Your task to perform on an android device: turn on translation in the chrome app Image 0: 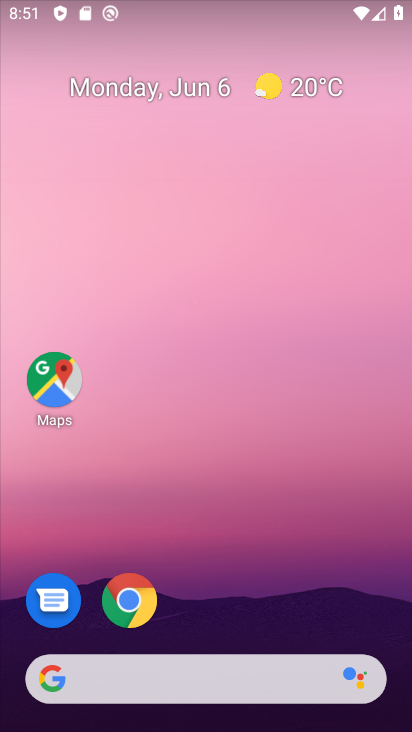
Step 0: click (129, 593)
Your task to perform on an android device: turn on translation in the chrome app Image 1: 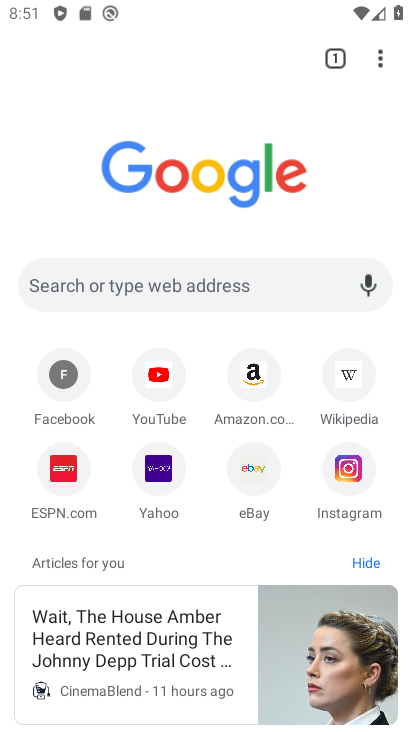
Step 1: click (377, 60)
Your task to perform on an android device: turn on translation in the chrome app Image 2: 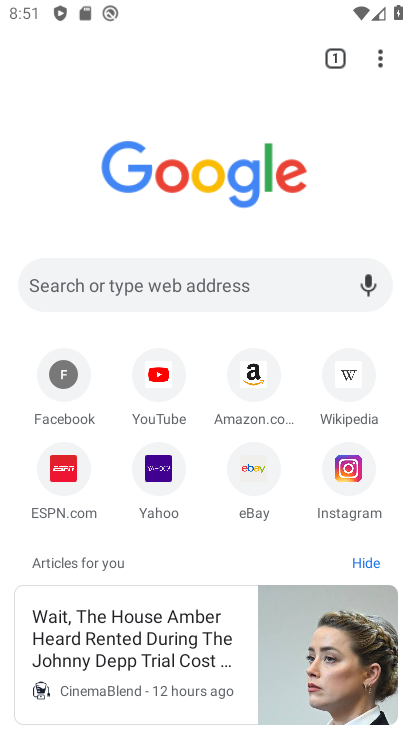
Step 2: click (379, 53)
Your task to perform on an android device: turn on translation in the chrome app Image 3: 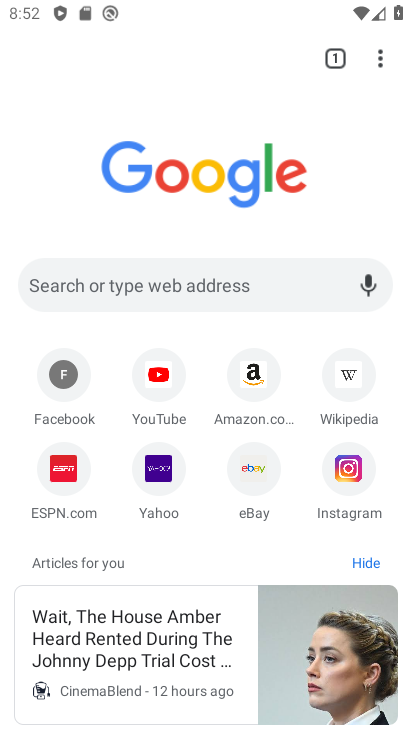
Step 3: click (382, 54)
Your task to perform on an android device: turn on translation in the chrome app Image 4: 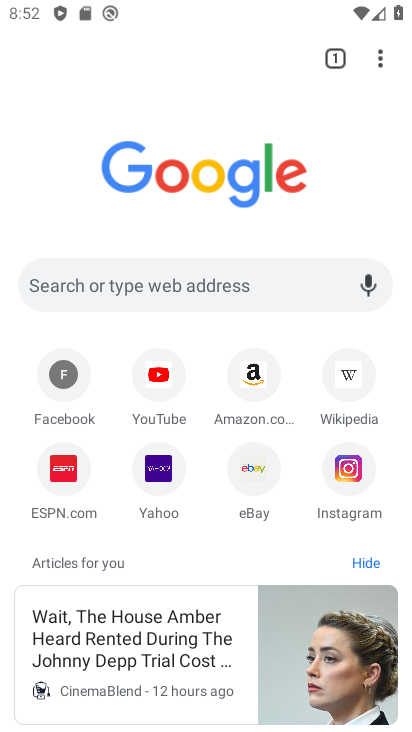
Step 4: click (382, 54)
Your task to perform on an android device: turn on translation in the chrome app Image 5: 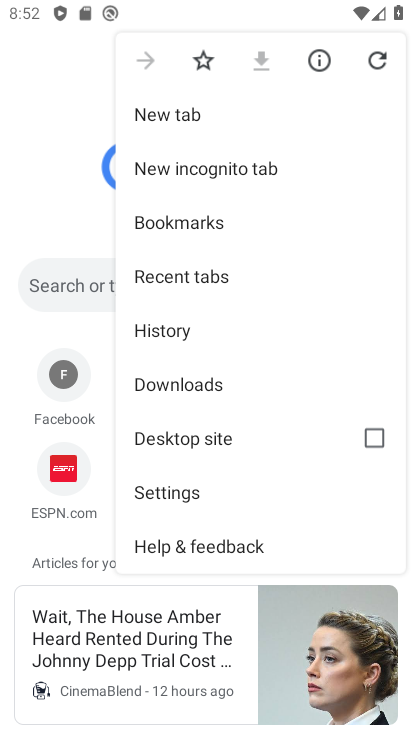
Step 5: click (209, 489)
Your task to perform on an android device: turn on translation in the chrome app Image 6: 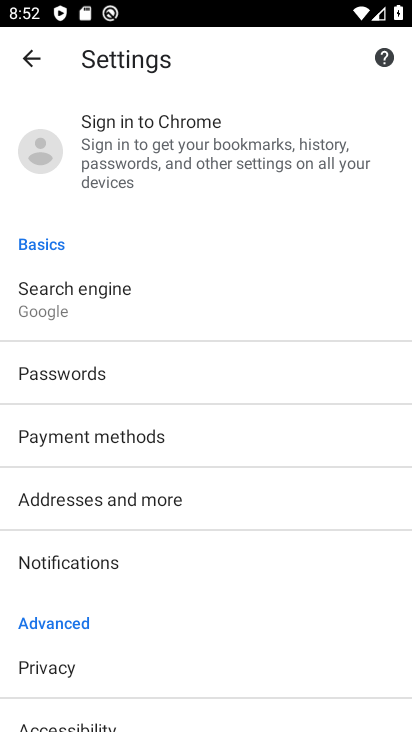
Step 6: drag from (58, 552) to (238, 230)
Your task to perform on an android device: turn on translation in the chrome app Image 7: 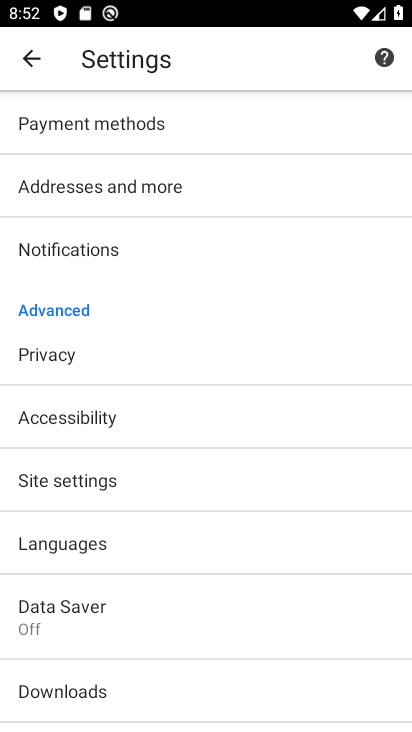
Step 7: click (85, 547)
Your task to perform on an android device: turn on translation in the chrome app Image 8: 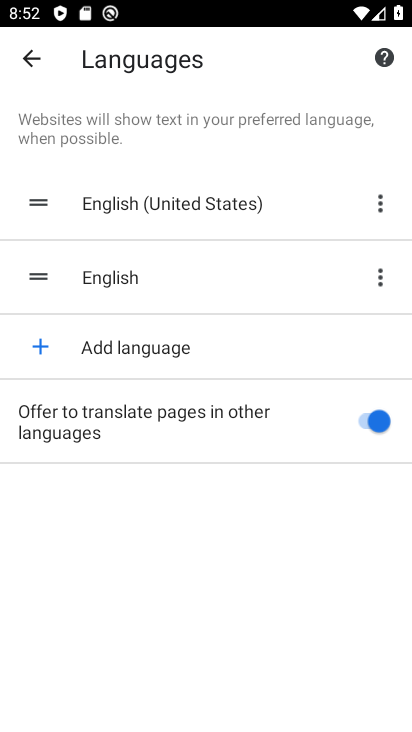
Step 8: task complete